Your task to perform on an android device: Go to calendar. Show me events next week Image 0: 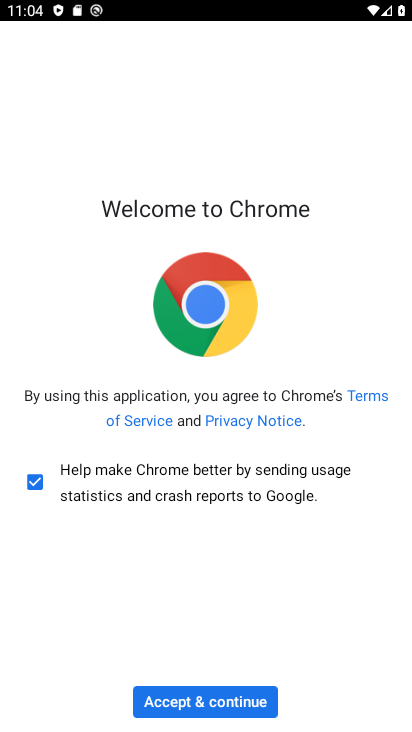
Step 0: press home button
Your task to perform on an android device: Go to calendar. Show me events next week Image 1: 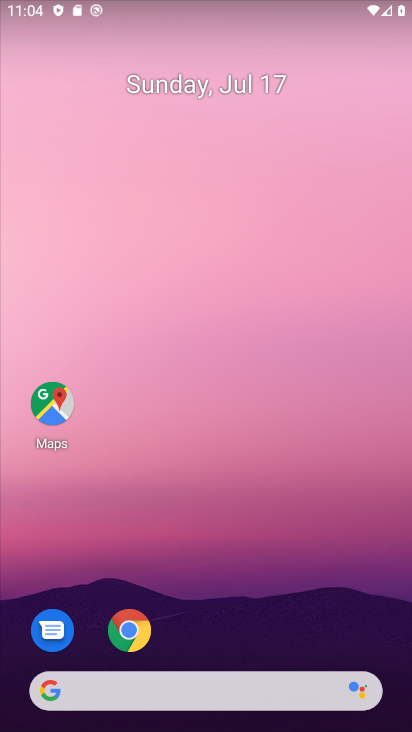
Step 1: drag from (178, 630) to (137, 136)
Your task to perform on an android device: Go to calendar. Show me events next week Image 2: 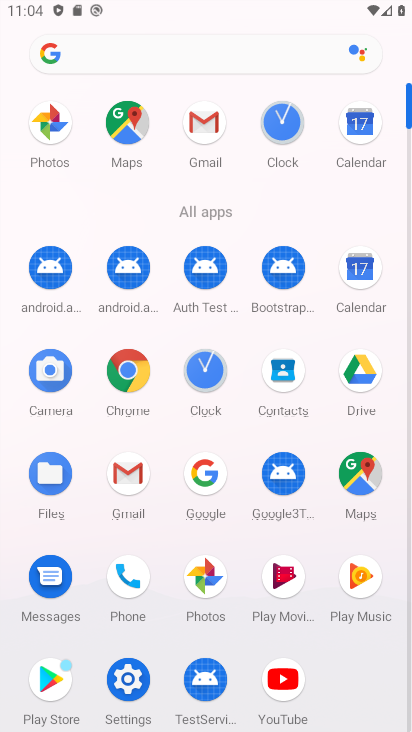
Step 2: click (365, 276)
Your task to perform on an android device: Go to calendar. Show me events next week Image 3: 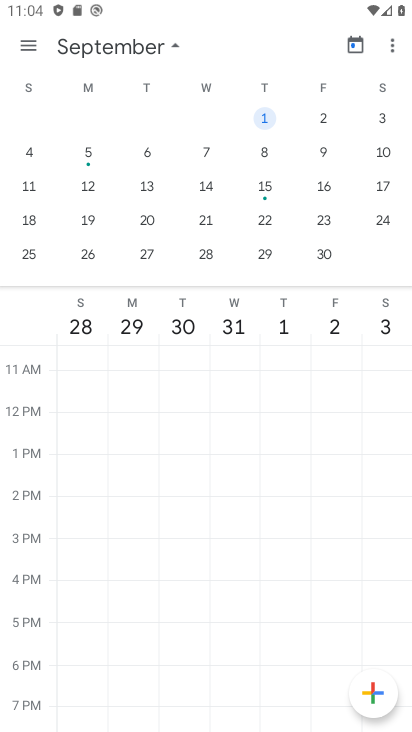
Step 3: click (118, 60)
Your task to perform on an android device: Go to calendar. Show me events next week Image 4: 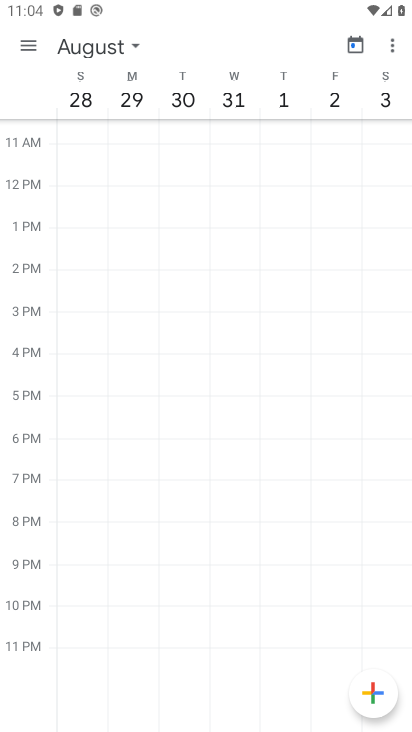
Step 4: click (83, 47)
Your task to perform on an android device: Go to calendar. Show me events next week Image 5: 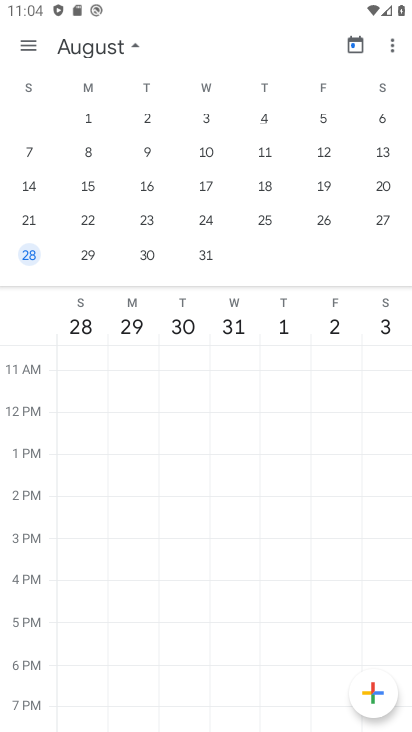
Step 5: drag from (52, 173) to (398, 148)
Your task to perform on an android device: Go to calendar. Show me events next week Image 6: 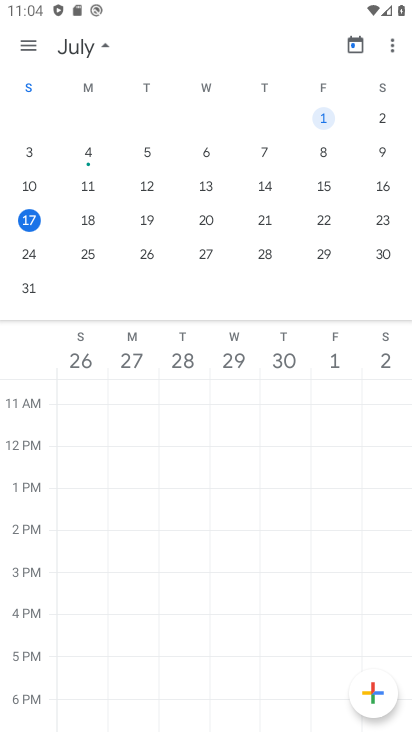
Step 6: click (25, 260)
Your task to perform on an android device: Go to calendar. Show me events next week Image 7: 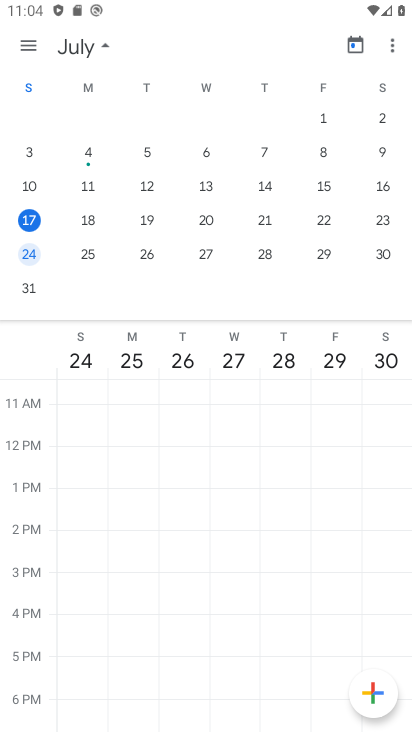
Step 7: task complete